Your task to perform on an android device: open a bookmark in the chrome app Image 0: 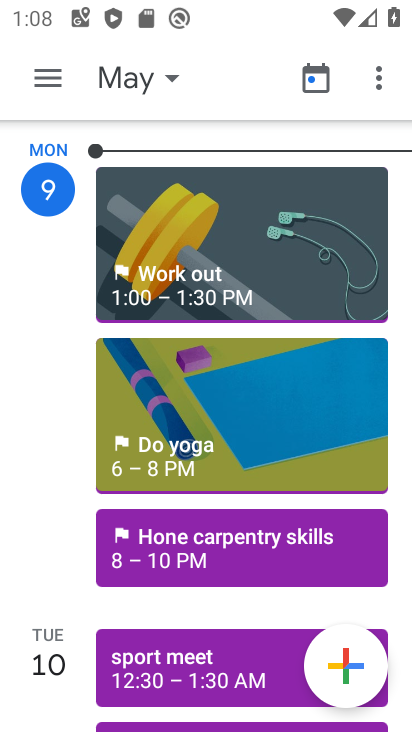
Step 0: press home button
Your task to perform on an android device: open a bookmark in the chrome app Image 1: 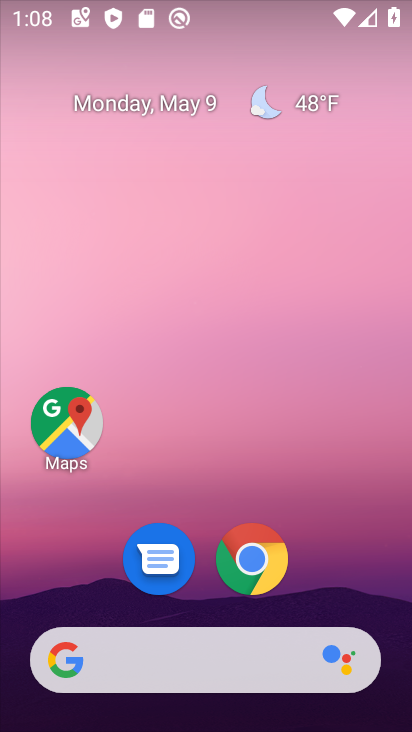
Step 1: drag from (305, 593) to (312, 324)
Your task to perform on an android device: open a bookmark in the chrome app Image 2: 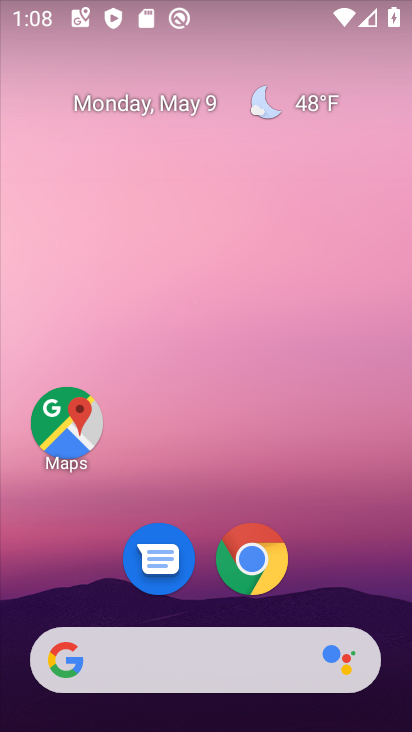
Step 2: drag from (352, 569) to (327, 273)
Your task to perform on an android device: open a bookmark in the chrome app Image 3: 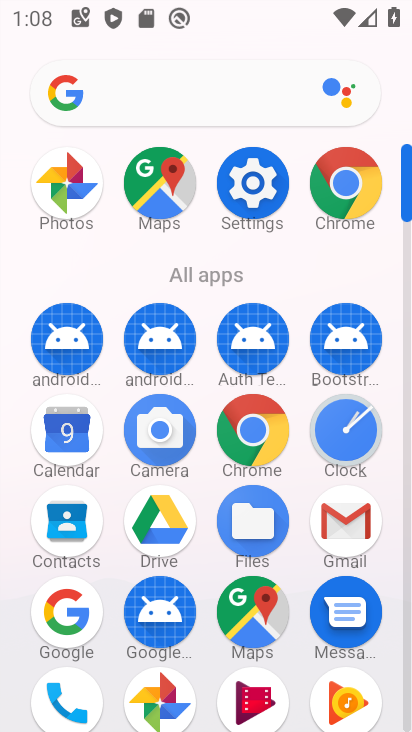
Step 3: click (326, 178)
Your task to perform on an android device: open a bookmark in the chrome app Image 4: 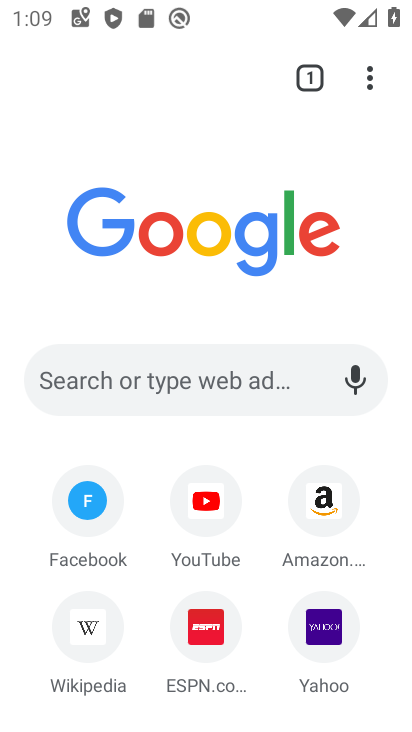
Step 4: click (361, 69)
Your task to perform on an android device: open a bookmark in the chrome app Image 5: 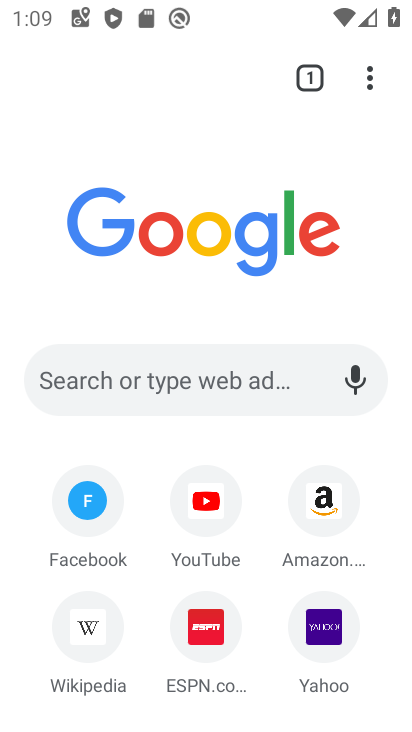
Step 5: click (369, 70)
Your task to perform on an android device: open a bookmark in the chrome app Image 6: 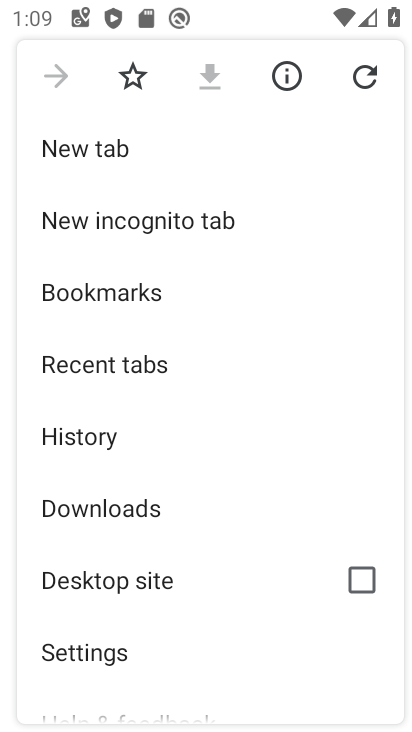
Step 6: click (128, 306)
Your task to perform on an android device: open a bookmark in the chrome app Image 7: 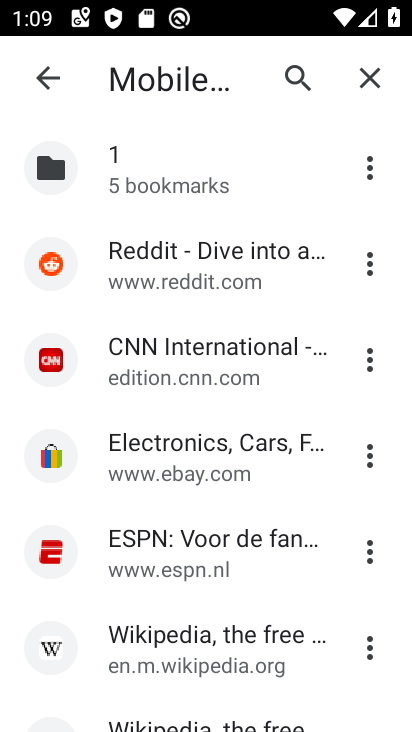
Step 7: task complete